Your task to perform on an android device: Show the shopping cart on ebay.com. Image 0: 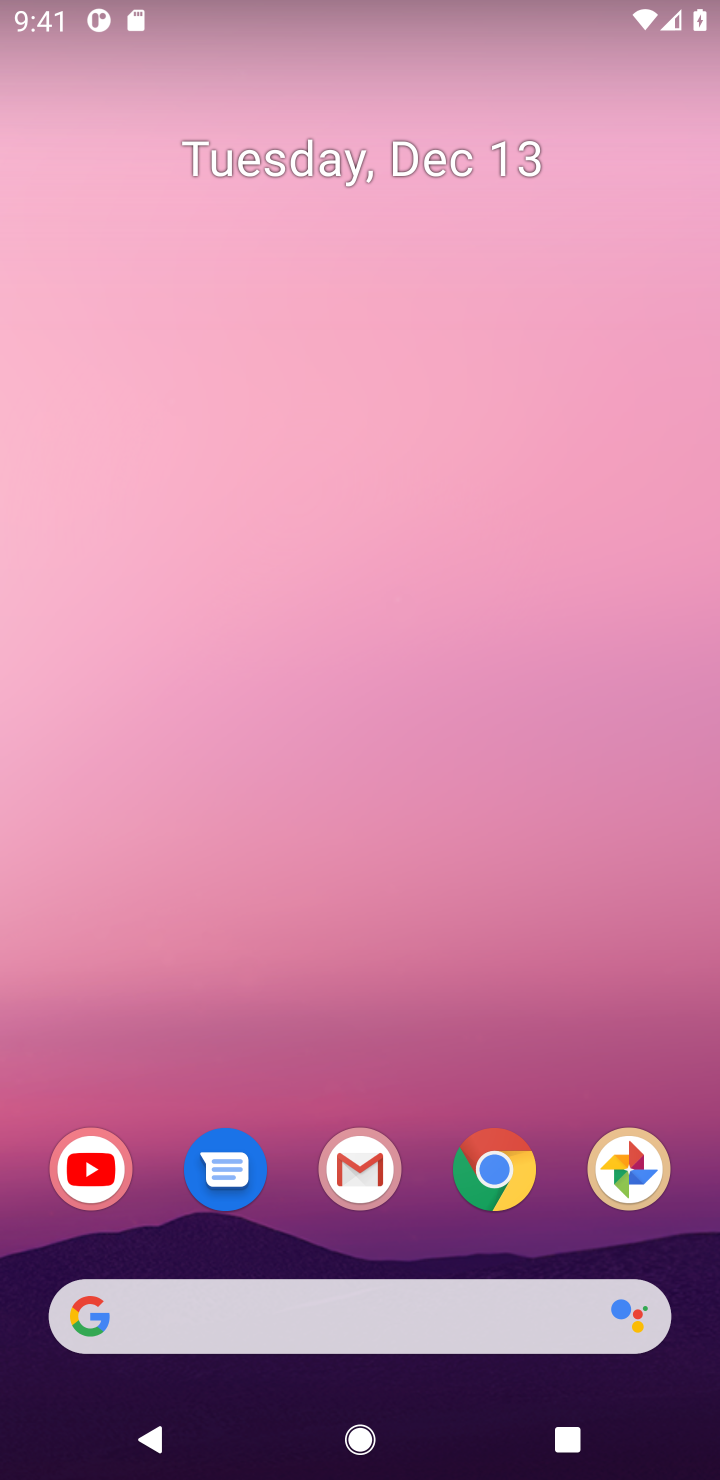
Step 0: click (514, 1191)
Your task to perform on an android device: Show the shopping cart on ebay.com. Image 1: 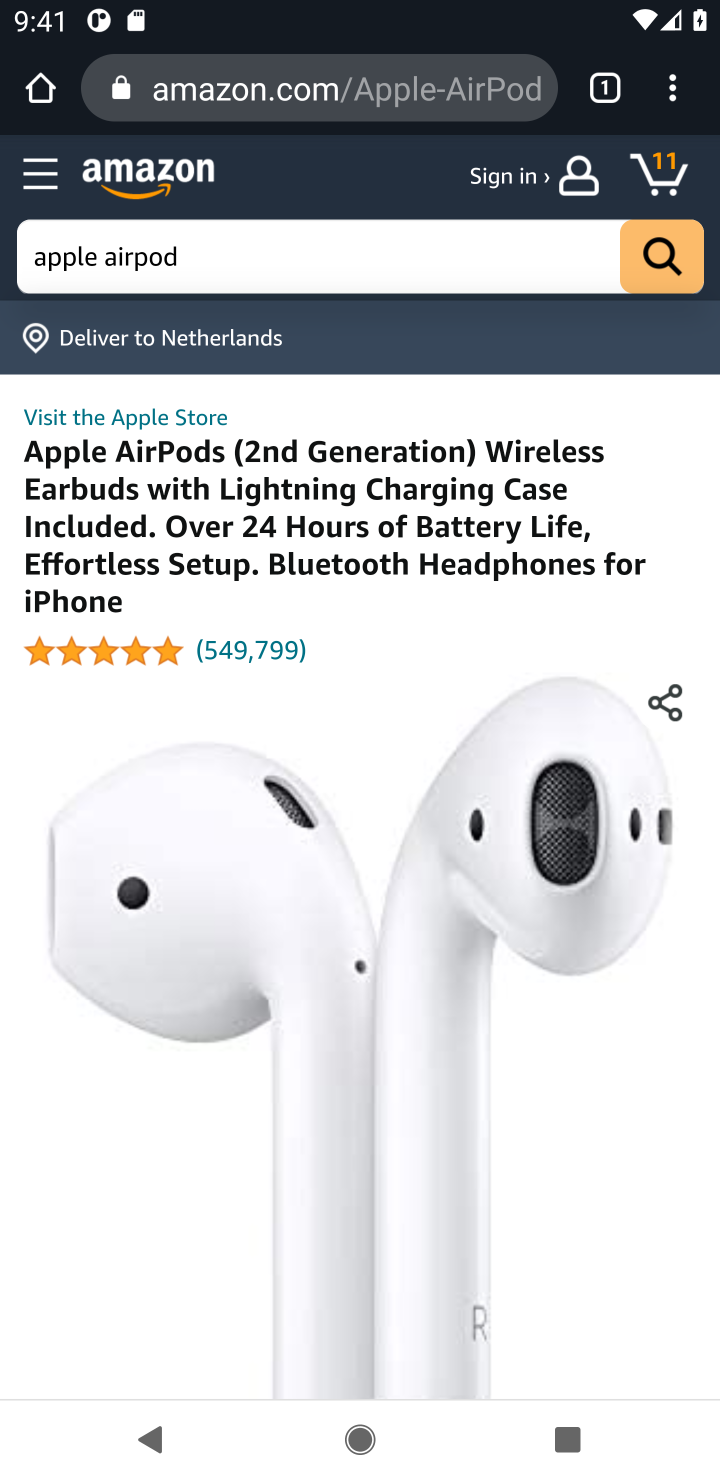
Step 1: click (228, 82)
Your task to perform on an android device: Show the shopping cart on ebay.com. Image 2: 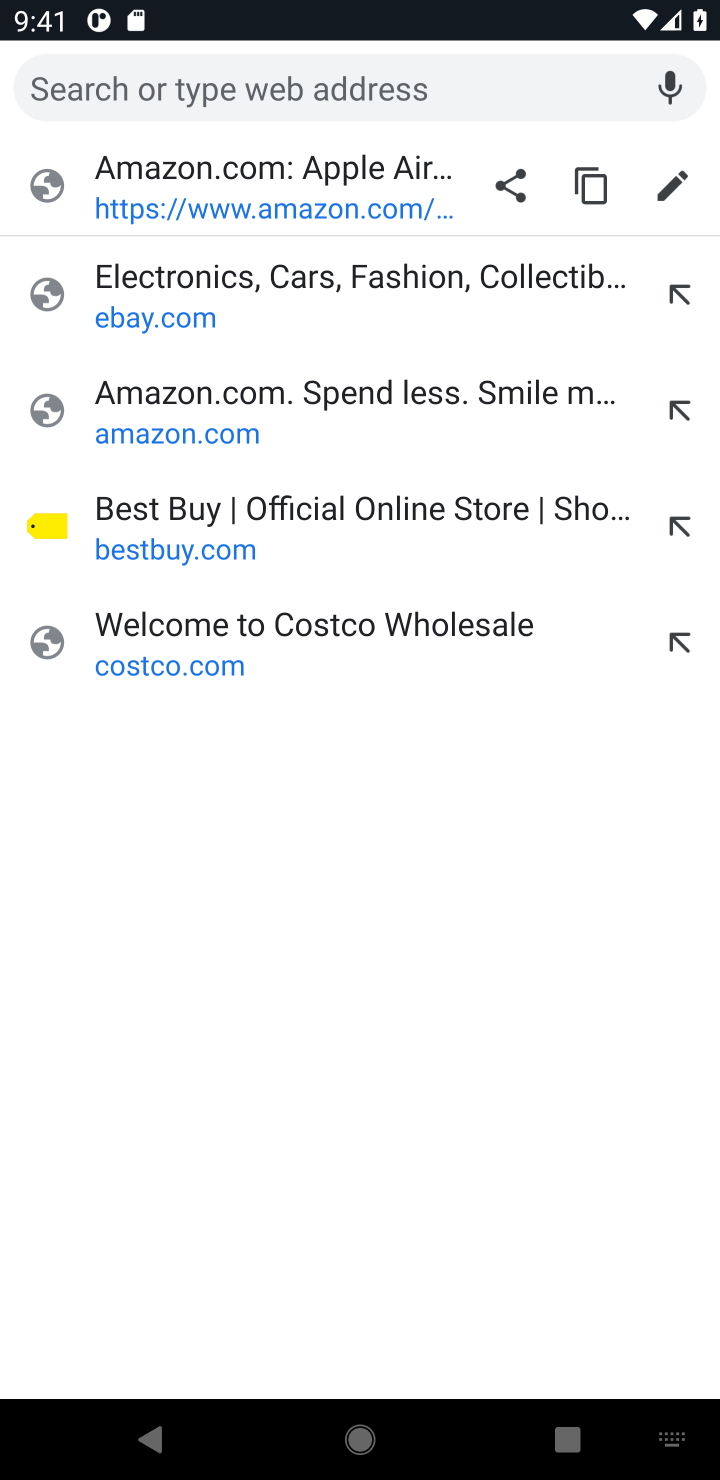
Step 2: click (358, 305)
Your task to perform on an android device: Show the shopping cart on ebay.com. Image 3: 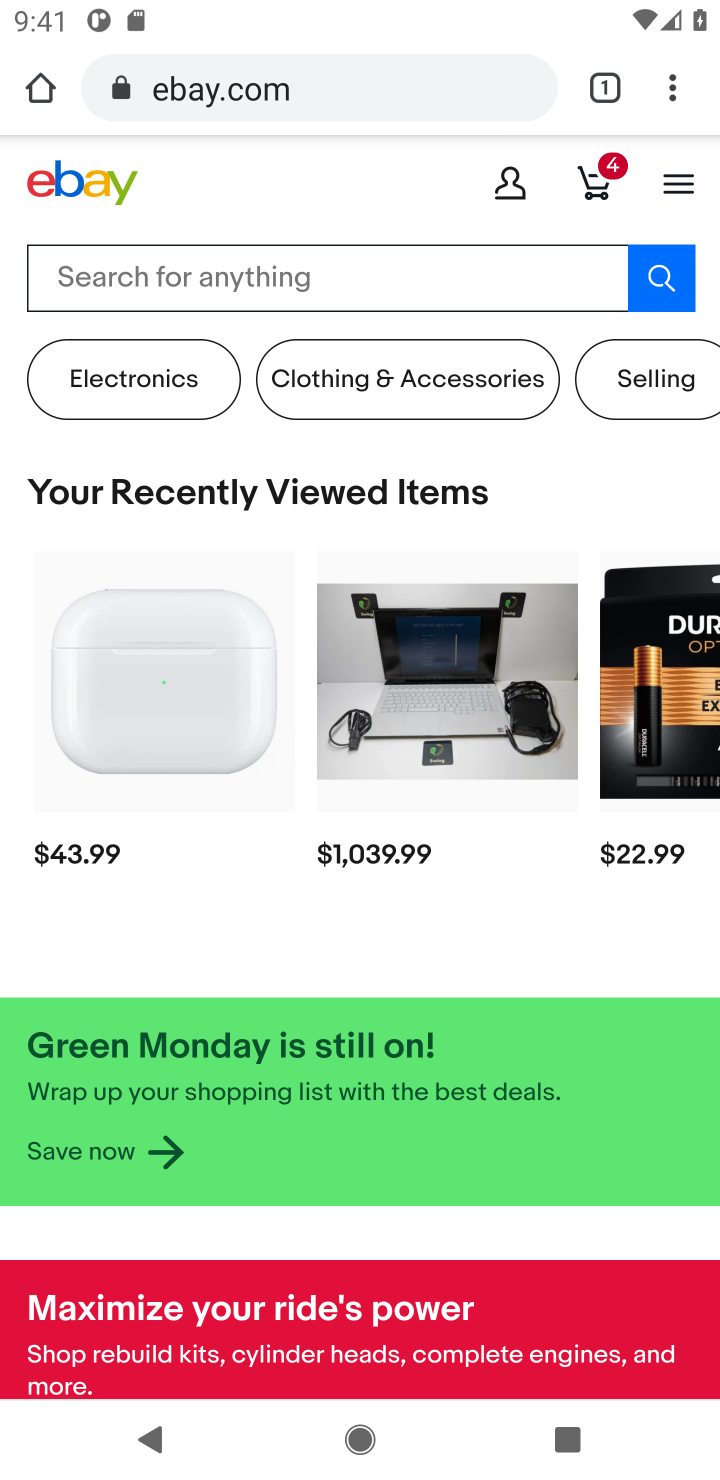
Step 3: click (580, 172)
Your task to perform on an android device: Show the shopping cart on ebay.com. Image 4: 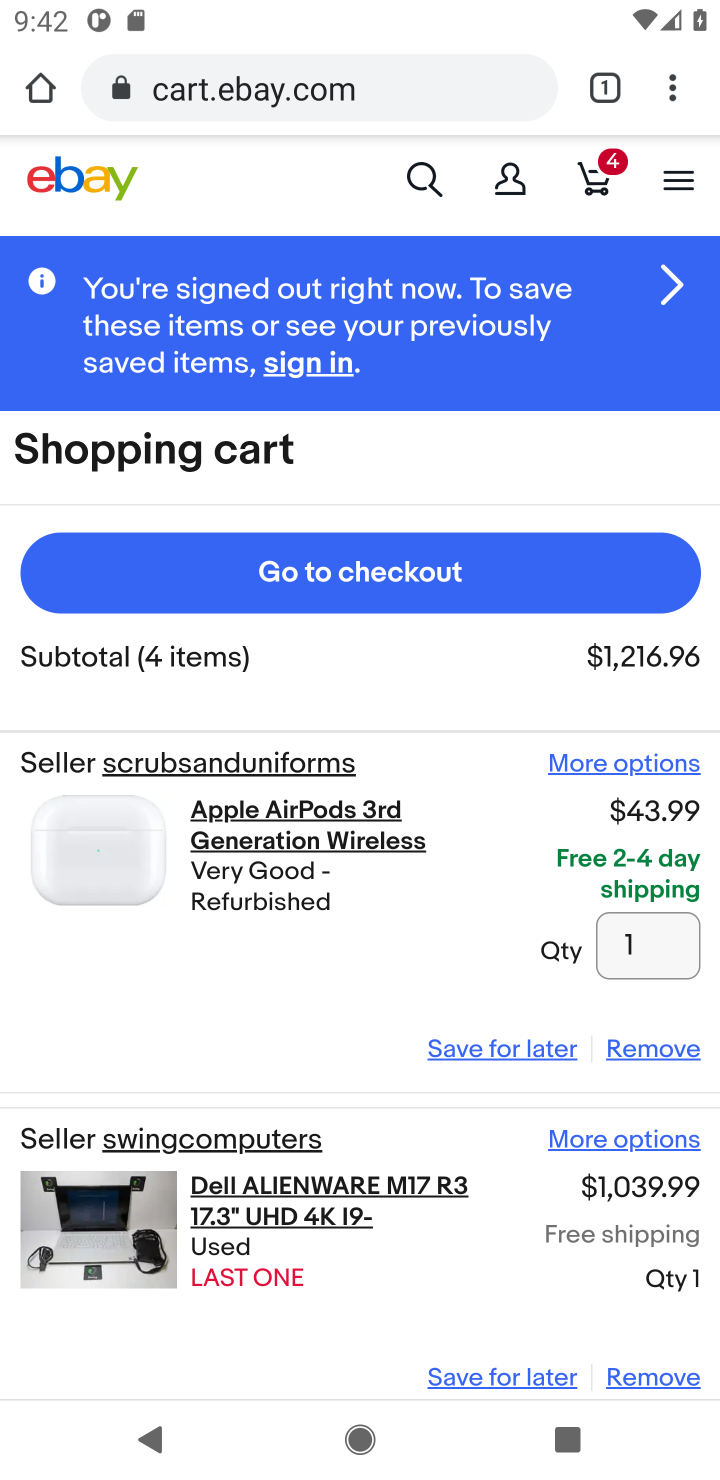
Step 4: task complete